Your task to perform on an android device: turn on improve location accuracy Image 0: 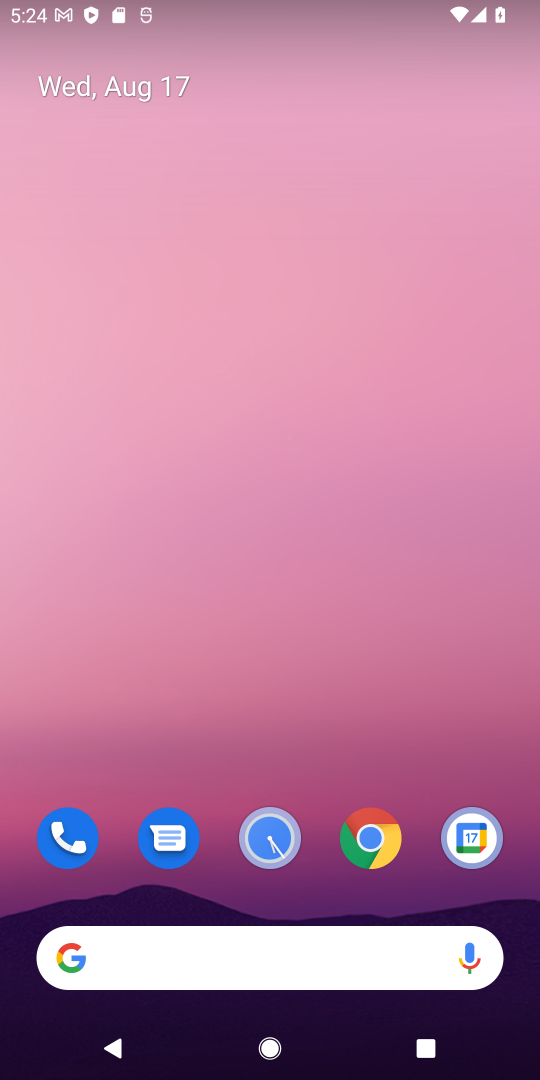
Step 0: drag from (289, 900) to (131, 159)
Your task to perform on an android device: turn on improve location accuracy Image 1: 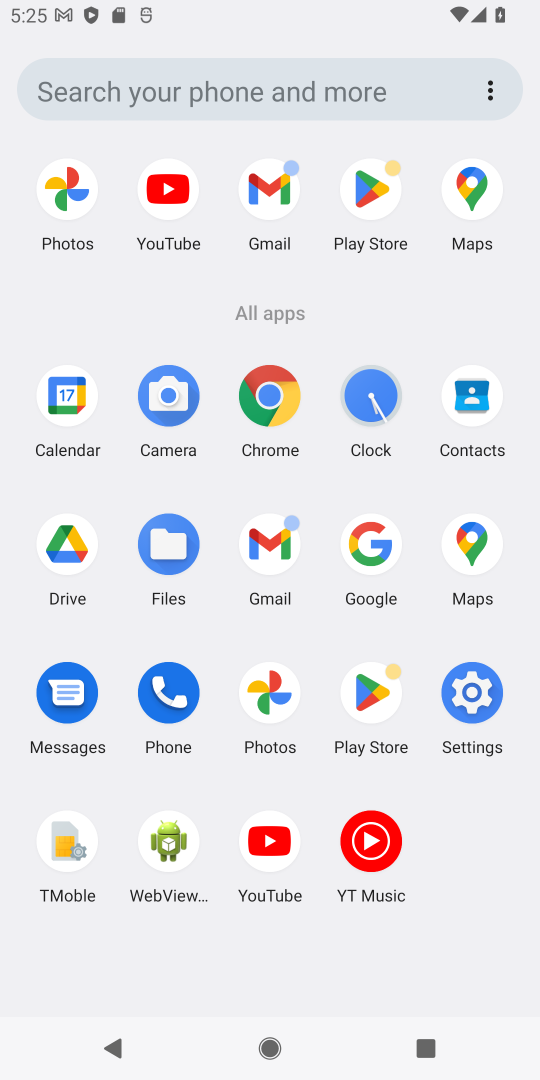
Step 1: click (460, 711)
Your task to perform on an android device: turn on improve location accuracy Image 2: 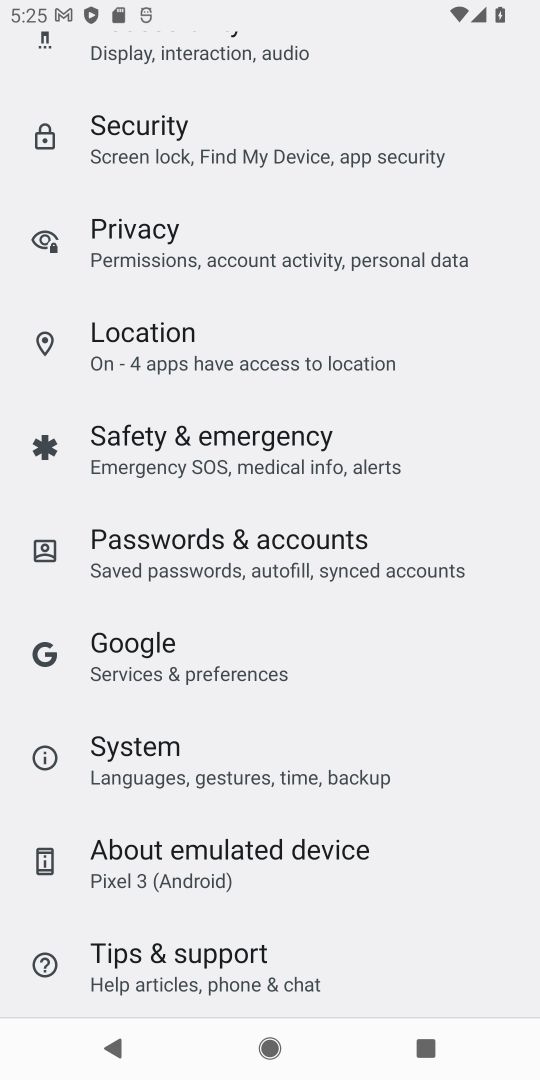
Step 2: click (193, 367)
Your task to perform on an android device: turn on improve location accuracy Image 3: 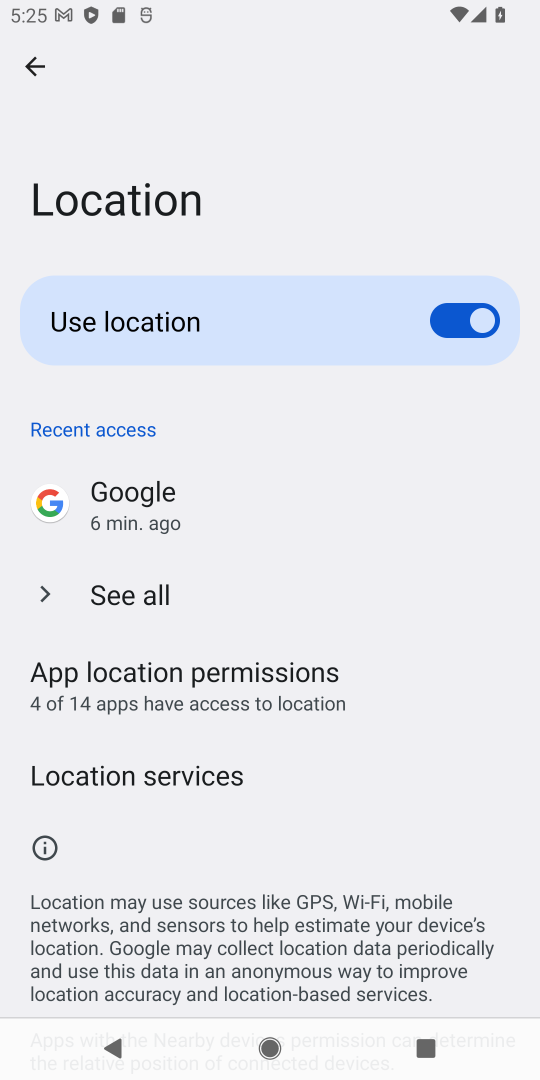
Step 3: click (107, 778)
Your task to perform on an android device: turn on improve location accuracy Image 4: 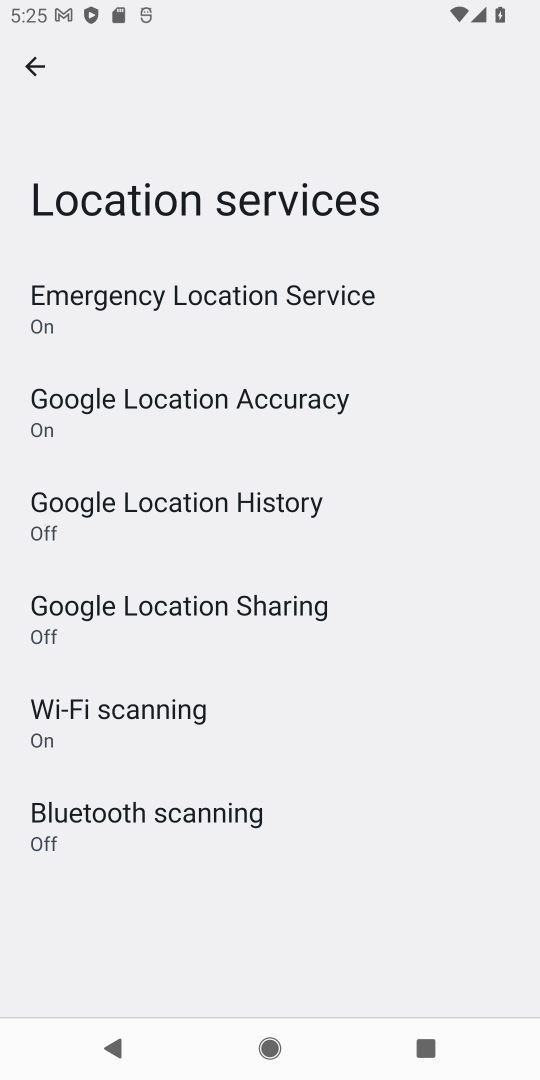
Step 4: click (114, 417)
Your task to perform on an android device: turn on improve location accuracy Image 5: 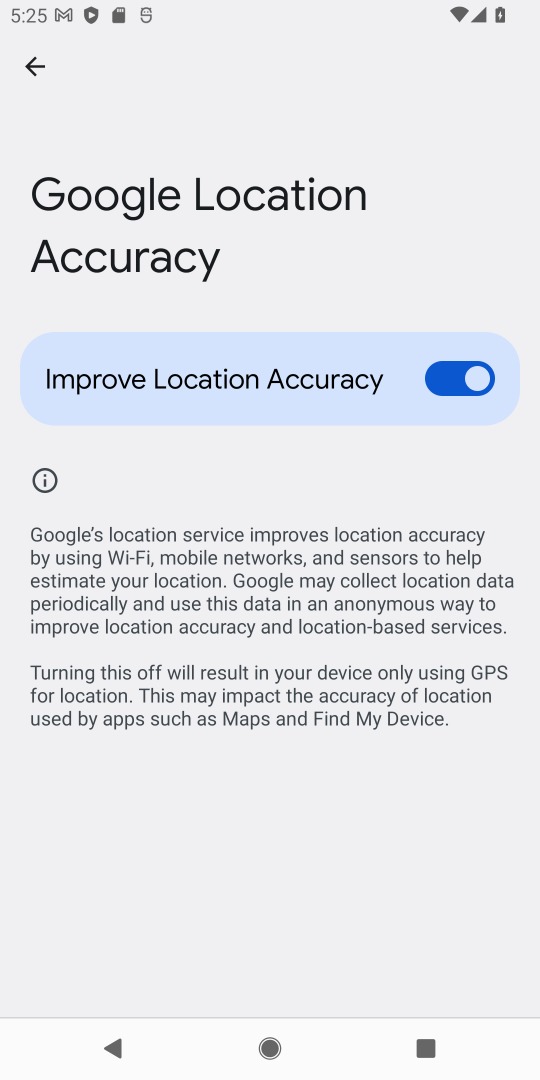
Step 5: task complete